Your task to perform on an android device: What is the recent news? Image 0: 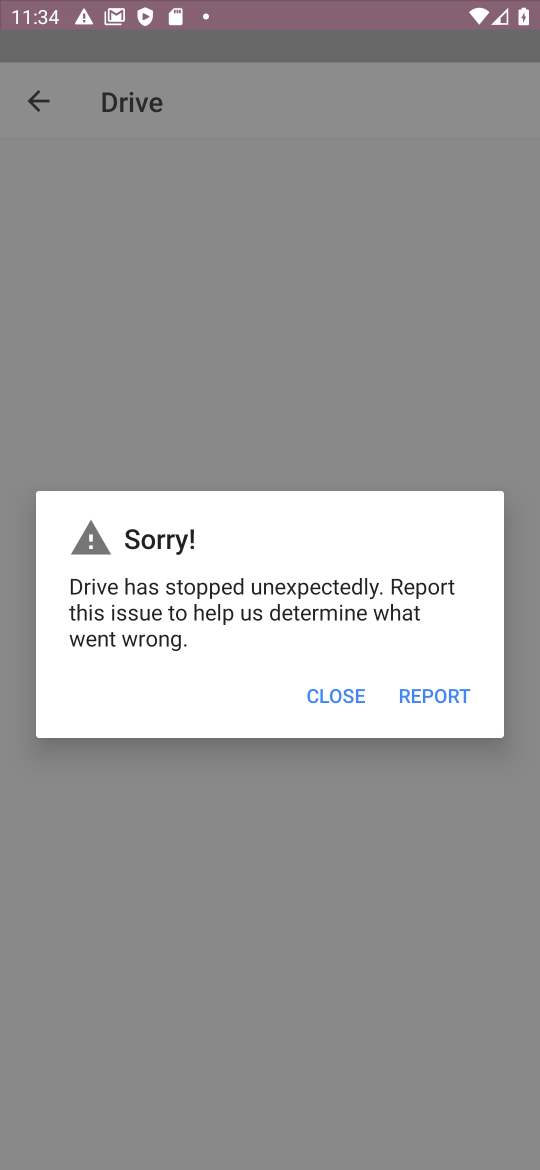
Step 0: click (331, 857)
Your task to perform on an android device: What is the recent news? Image 1: 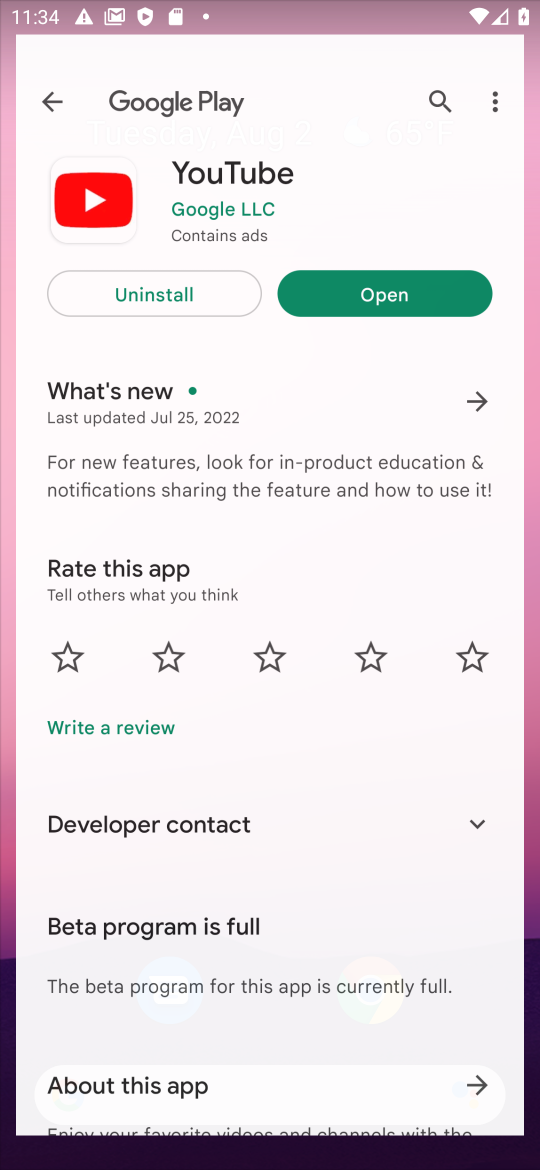
Step 1: press home button
Your task to perform on an android device: What is the recent news? Image 2: 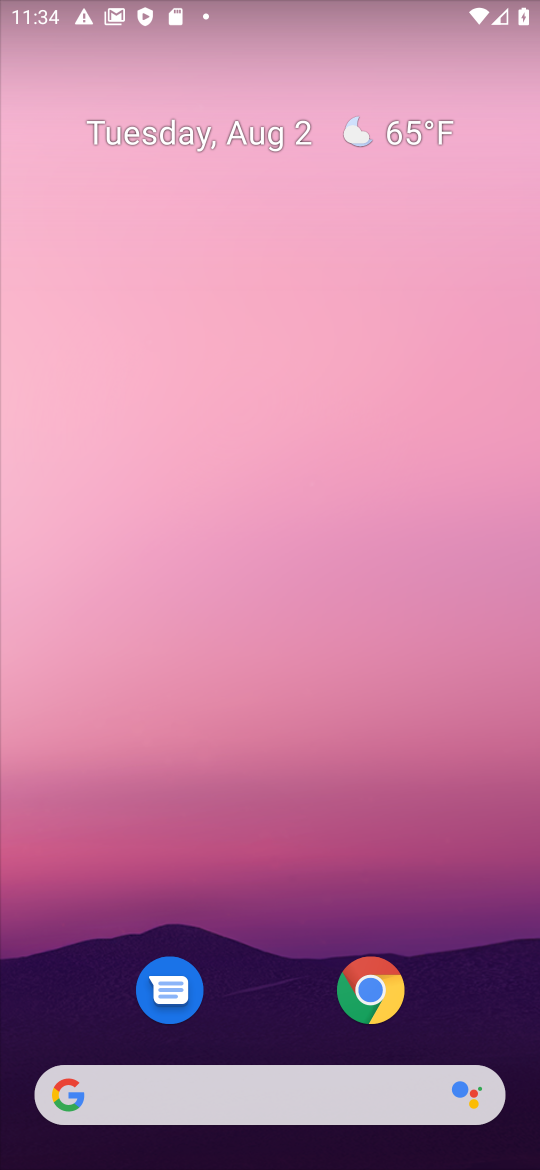
Step 2: click (253, 1102)
Your task to perform on an android device: What is the recent news? Image 3: 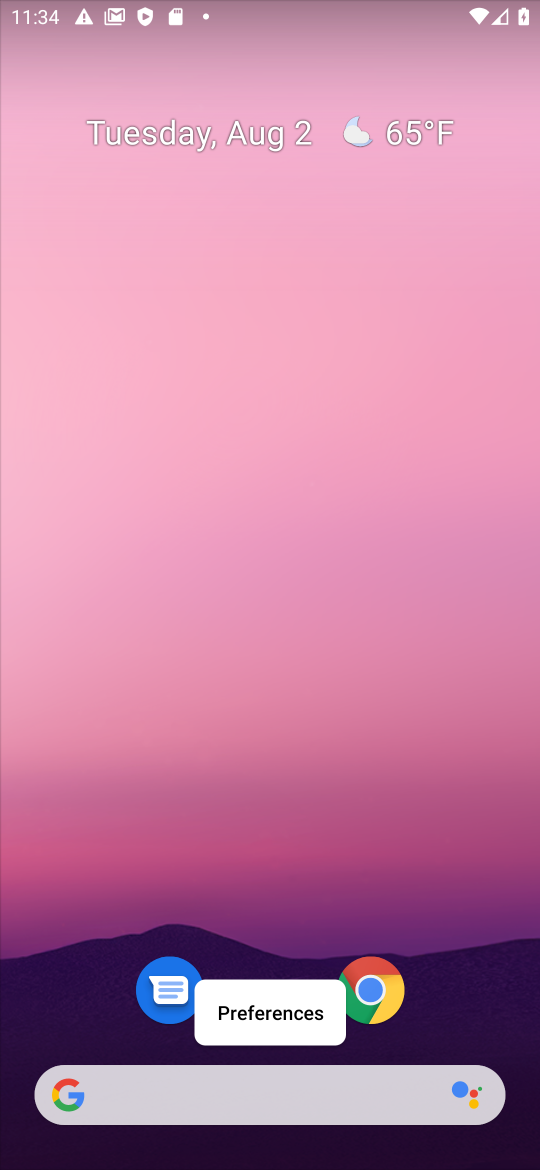
Step 3: click (279, 1092)
Your task to perform on an android device: What is the recent news? Image 4: 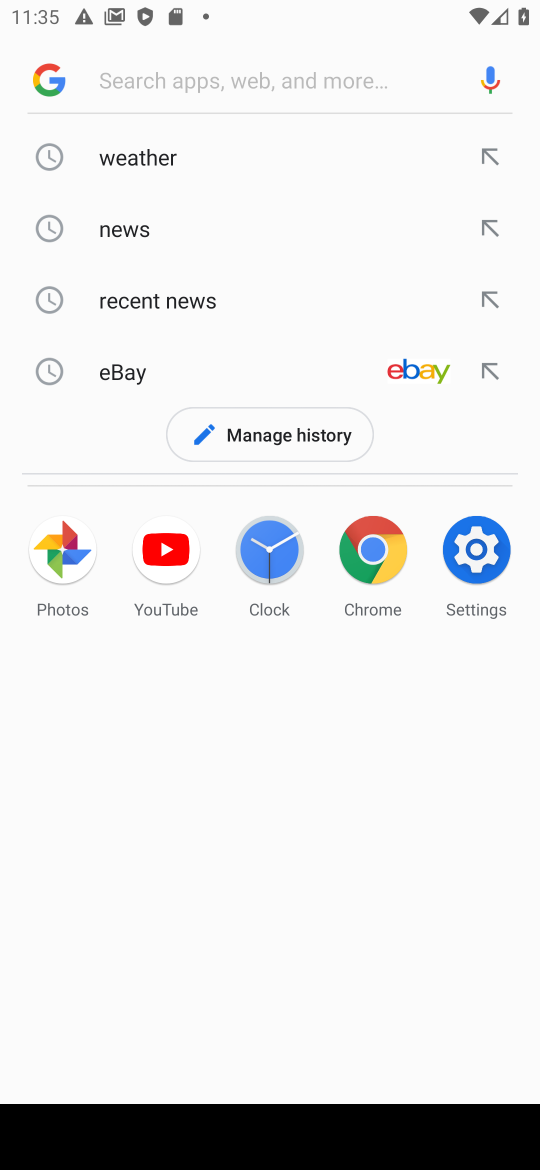
Step 4: click (184, 311)
Your task to perform on an android device: What is the recent news? Image 5: 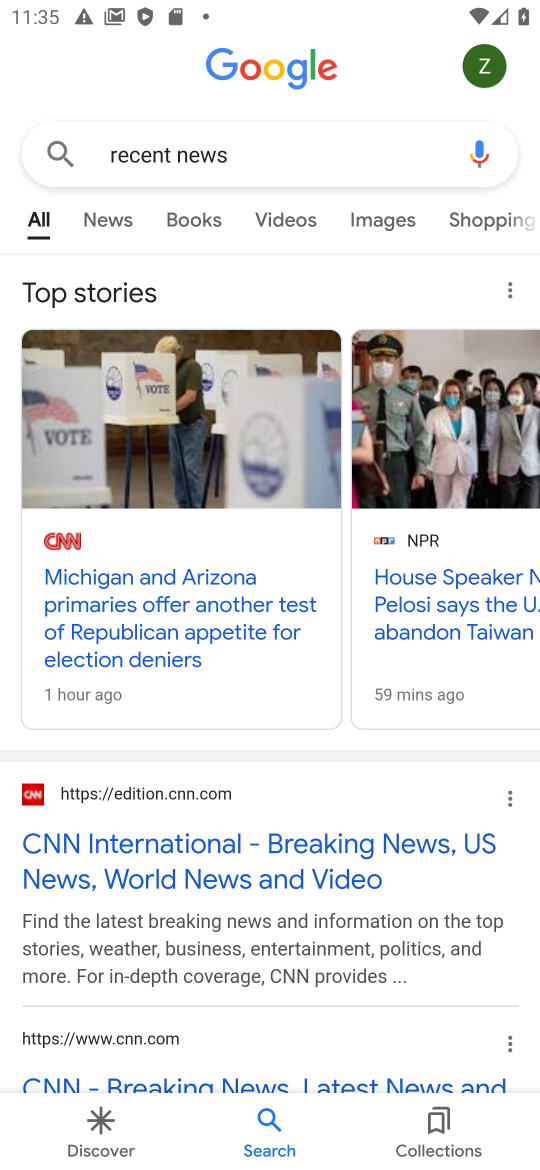
Step 5: task complete